Your task to perform on an android device: search for starred emails in the gmail app Image 0: 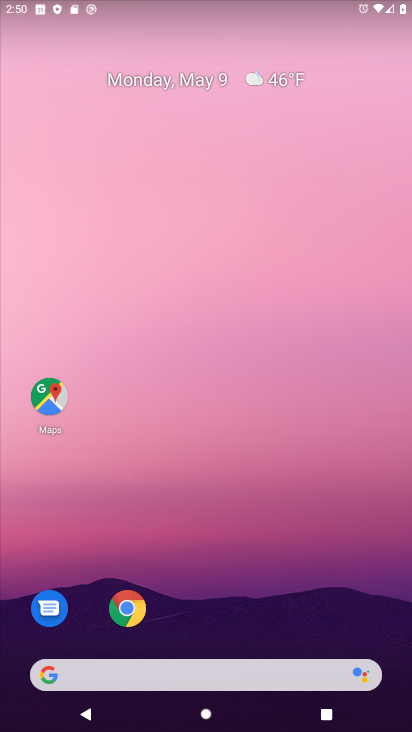
Step 0: drag from (239, 475) to (281, 224)
Your task to perform on an android device: search for starred emails in the gmail app Image 1: 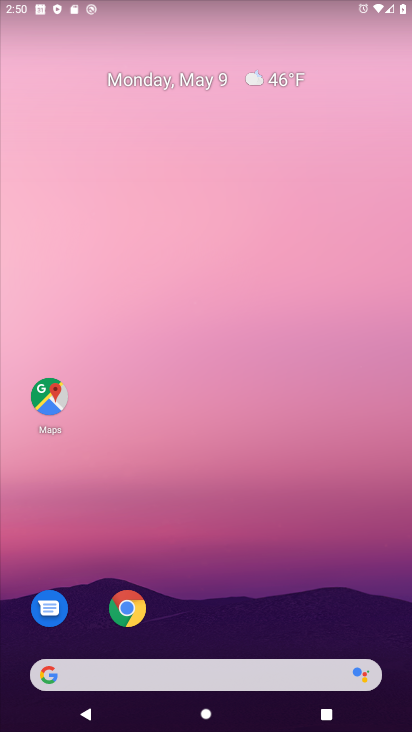
Step 1: drag from (211, 618) to (279, 172)
Your task to perform on an android device: search for starred emails in the gmail app Image 2: 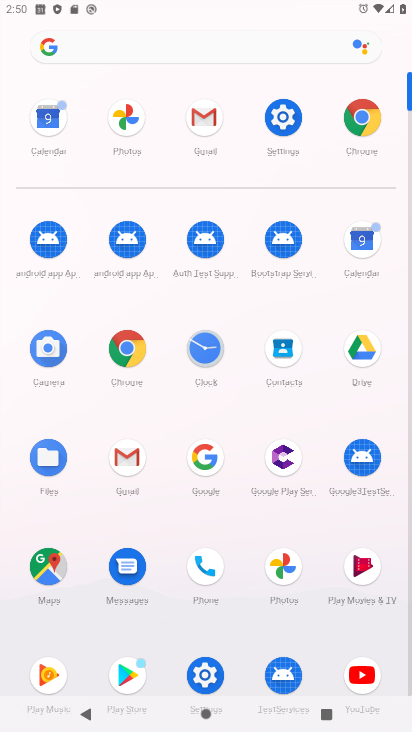
Step 2: click (204, 119)
Your task to perform on an android device: search for starred emails in the gmail app Image 3: 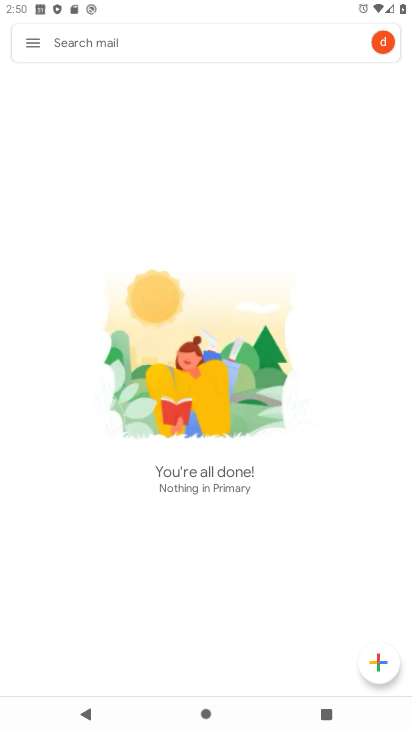
Step 3: click (35, 43)
Your task to perform on an android device: search for starred emails in the gmail app Image 4: 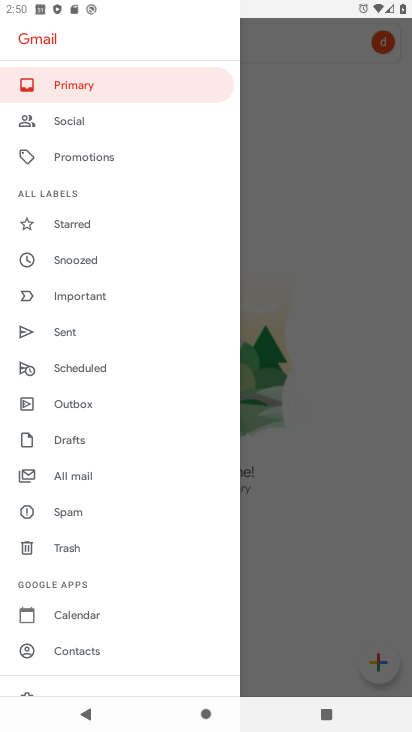
Step 4: click (85, 224)
Your task to perform on an android device: search for starred emails in the gmail app Image 5: 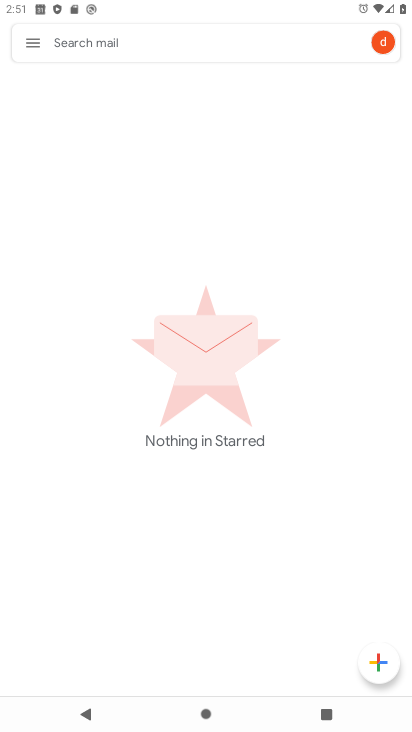
Step 5: task complete